Your task to perform on an android device: Open sound settings Image 0: 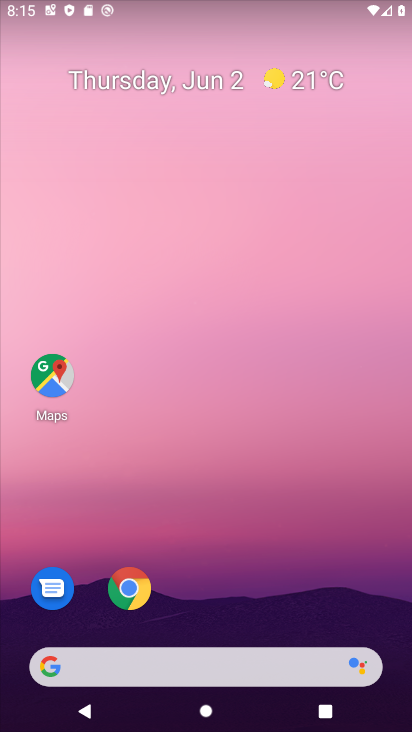
Step 0: drag from (227, 669) to (180, 1)
Your task to perform on an android device: Open sound settings Image 1: 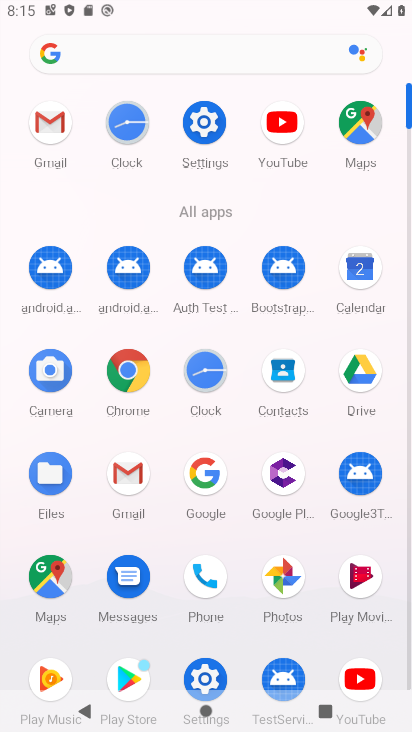
Step 1: click (195, 132)
Your task to perform on an android device: Open sound settings Image 2: 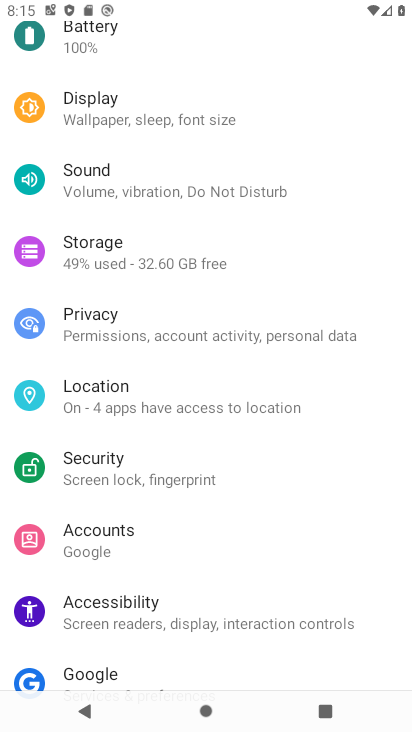
Step 2: click (95, 175)
Your task to perform on an android device: Open sound settings Image 3: 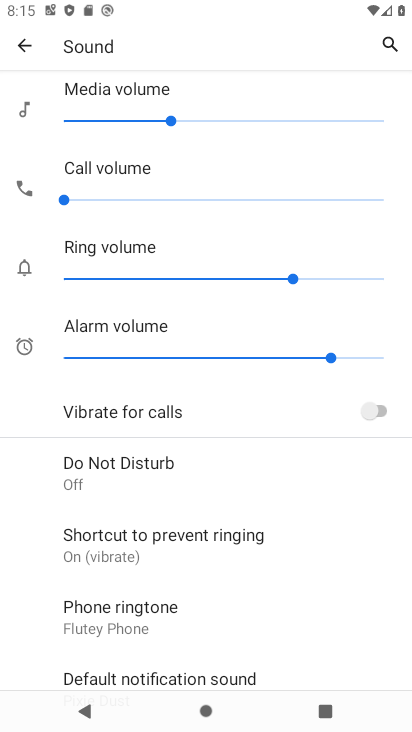
Step 3: task complete